Your task to perform on an android device: Open calendar and show me the fourth week of next month Image 0: 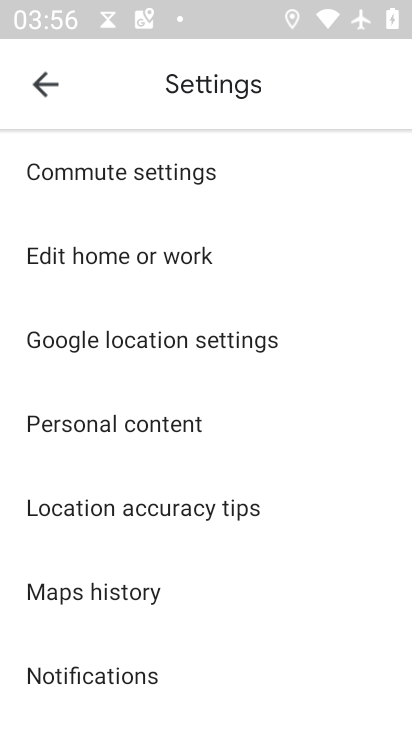
Step 0: press home button
Your task to perform on an android device: Open calendar and show me the fourth week of next month Image 1: 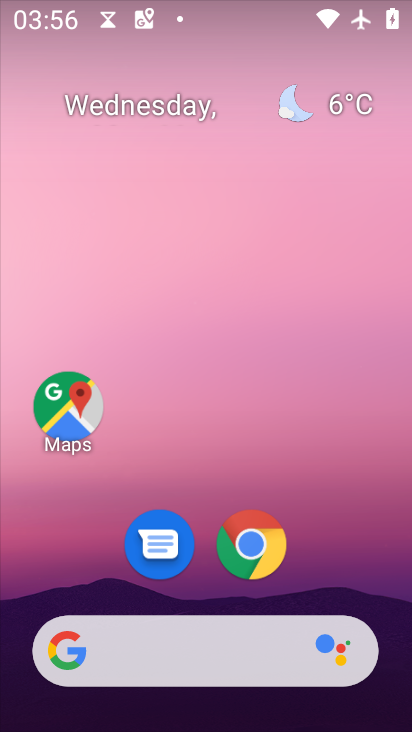
Step 1: drag from (321, 589) to (209, 176)
Your task to perform on an android device: Open calendar and show me the fourth week of next month Image 2: 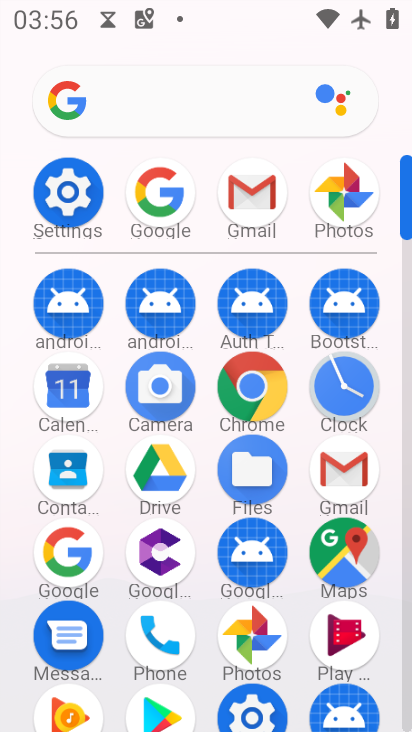
Step 2: click (57, 387)
Your task to perform on an android device: Open calendar and show me the fourth week of next month Image 3: 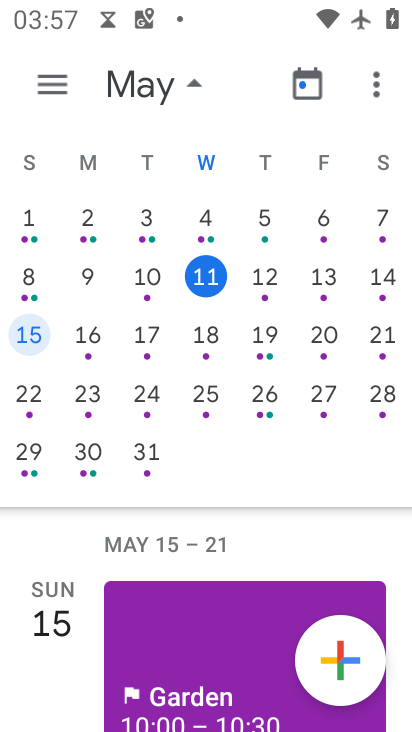
Step 3: drag from (322, 283) to (14, 269)
Your task to perform on an android device: Open calendar and show me the fourth week of next month Image 4: 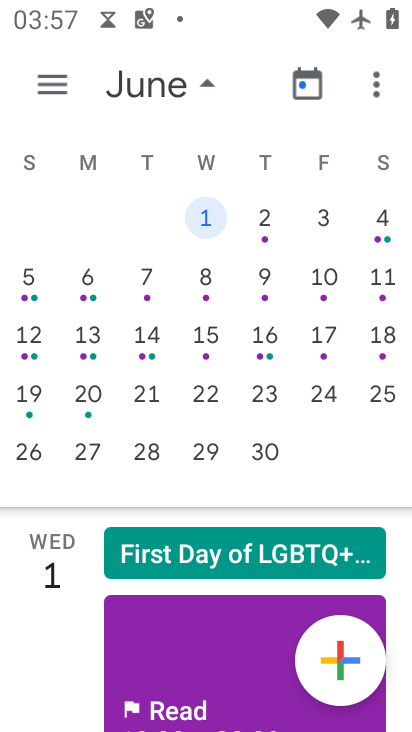
Step 4: click (33, 389)
Your task to perform on an android device: Open calendar and show me the fourth week of next month Image 5: 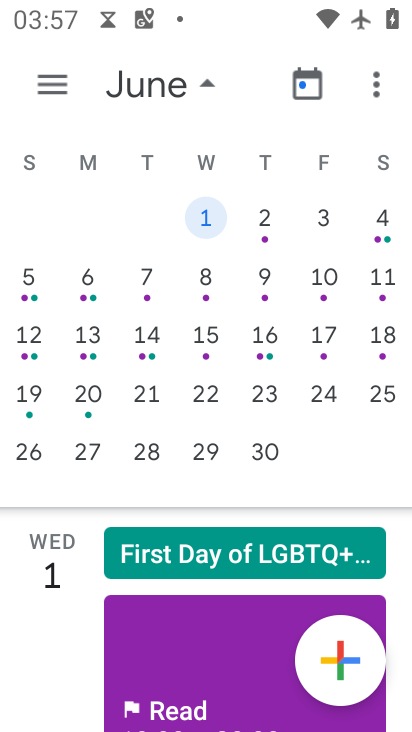
Step 5: click (46, 410)
Your task to perform on an android device: Open calendar and show me the fourth week of next month Image 6: 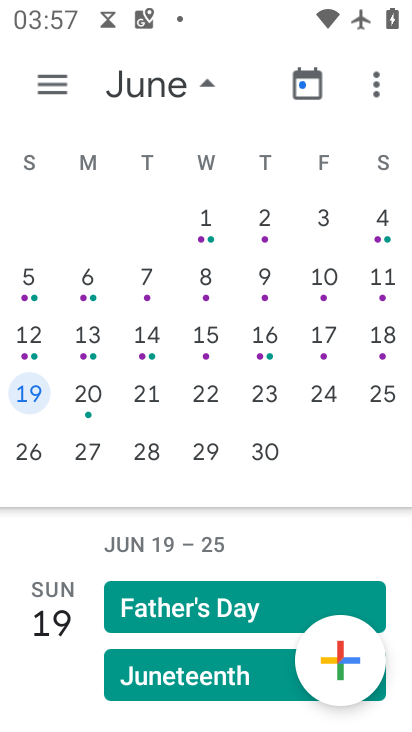
Step 6: task complete